Your task to perform on an android device: turn off javascript in the chrome app Image 0: 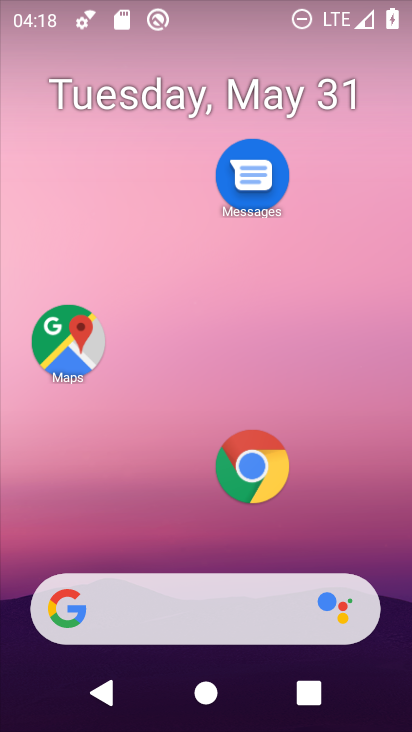
Step 0: click (247, 479)
Your task to perform on an android device: turn off javascript in the chrome app Image 1: 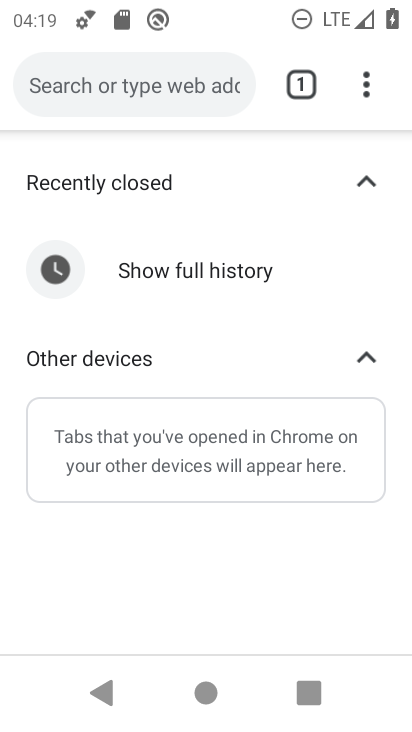
Step 1: drag from (367, 77) to (88, 507)
Your task to perform on an android device: turn off javascript in the chrome app Image 2: 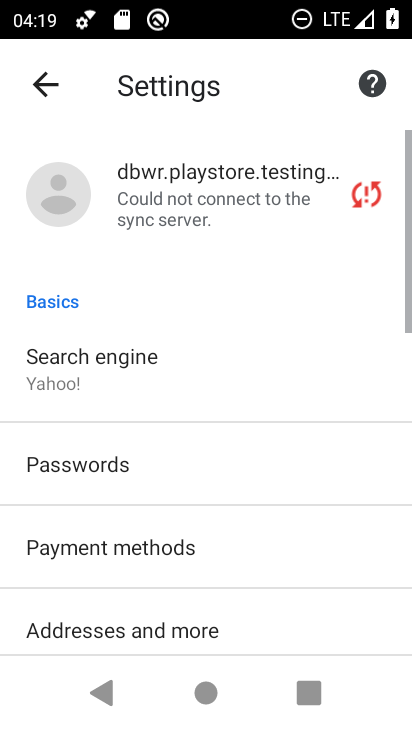
Step 2: drag from (98, 622) to (167, 162)
Your task to perform on an android device: turn off javascript in the chrome app Image 3: 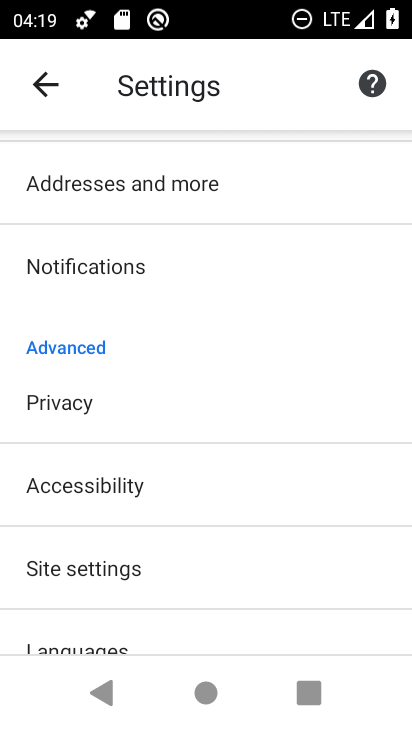
Step 3: click (89, 559)
Your task to perform on an android device: turn off javascript in the chrome app Image 4: 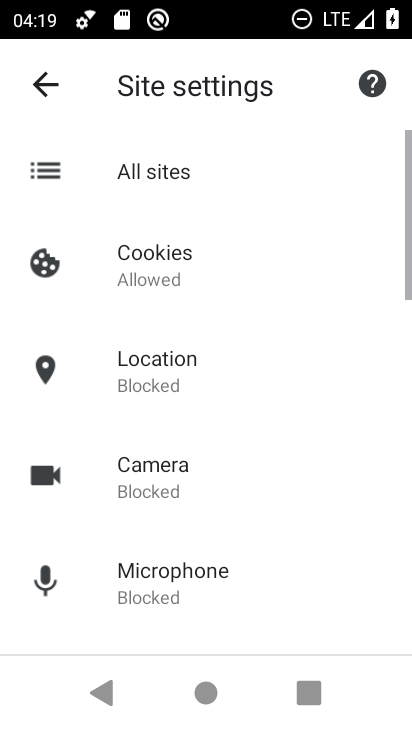
Step 4: drag from (128, 591) to (314, 45)
Your task to perform on an android device: turn off javascript in the chrome app Image 5: 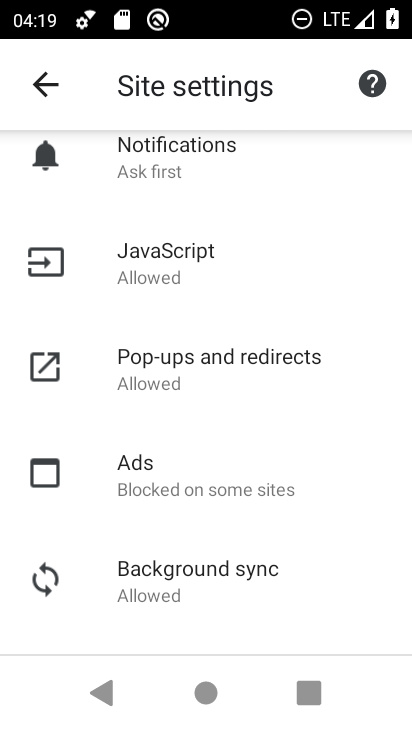
Step 5: click (140, 277)
Your task to perform on an android device: turn off javascript in the chrome app Image 6: 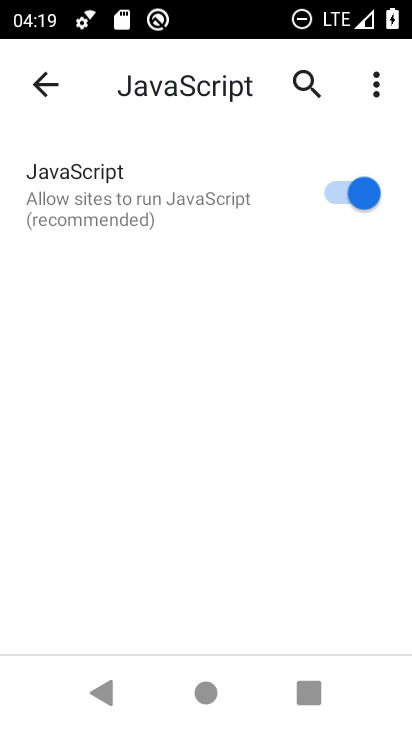
Step 6: click (361, 184)
Your task to perform on an android device: turn off javascript in the chrome app Image 7: 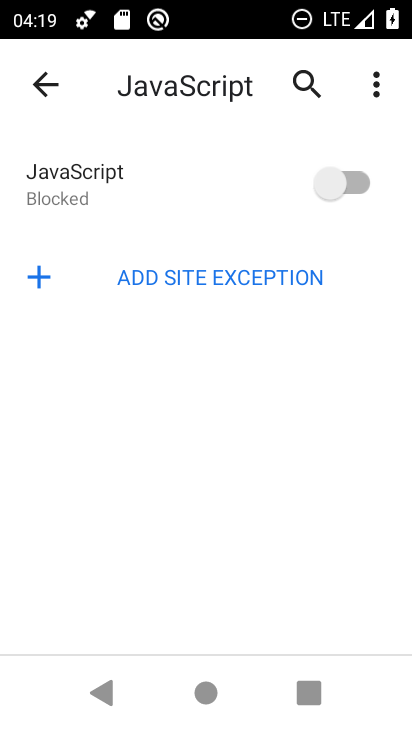
Step 7: task complete